Your task to perform on an android device: Toggle the flashlight Image 0: 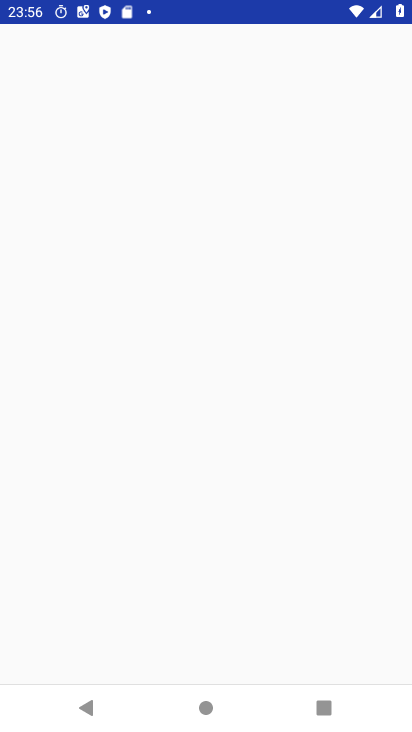
Step 0: drag from (213, 532) to (207, 62)
Your task to perform on an android device: Toggle the flashlight Image 1: 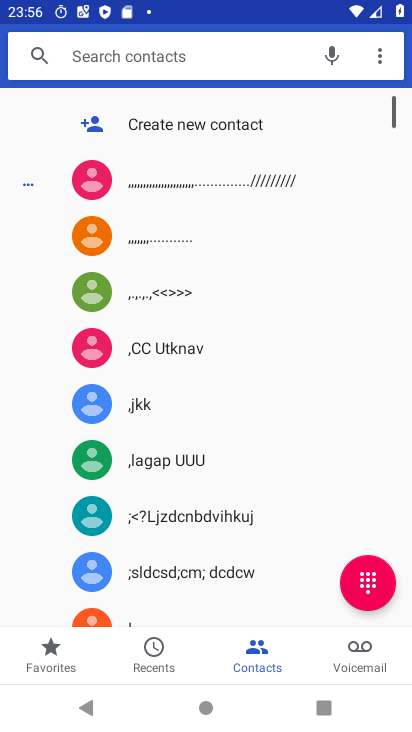
Step 1: press home button
Your task to perform on an android device: Toggle the flashlight Image 2: 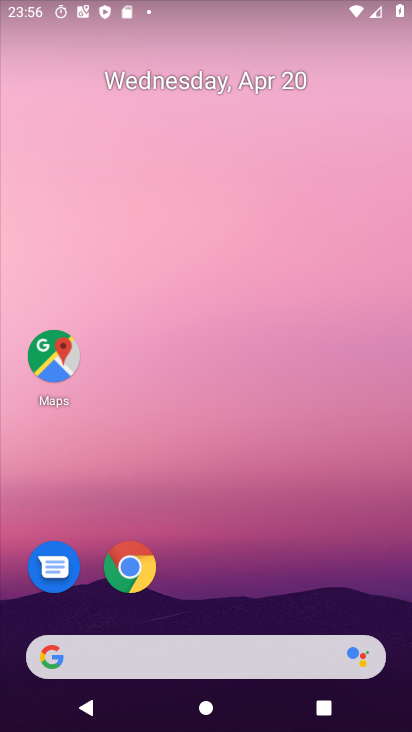
Step 2: drag from (253, 633) to (248, 117)
Your task to perform on an android device: Toggle the flashlight Image 3: 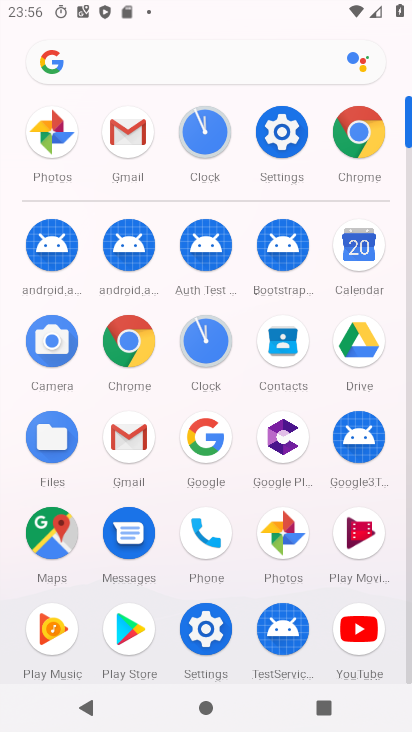
Step 3: click (276, 138)
Your task to perform on an android device: Toggle the flashlight Image 4: 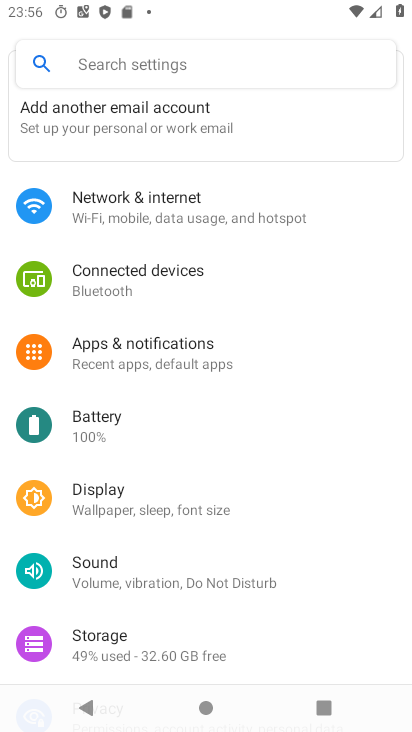
Step 4: task complete